Your task to perform on an android device: change keyboard looks Image 0: 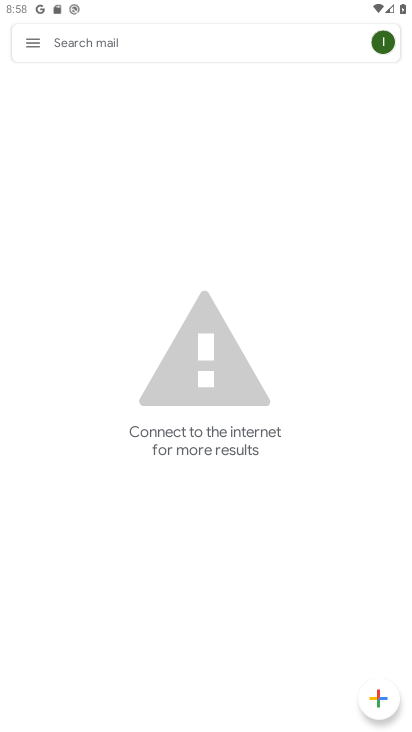
Step 0: press home button
Your task to perform on an android device: change keyboard looks Image 1: 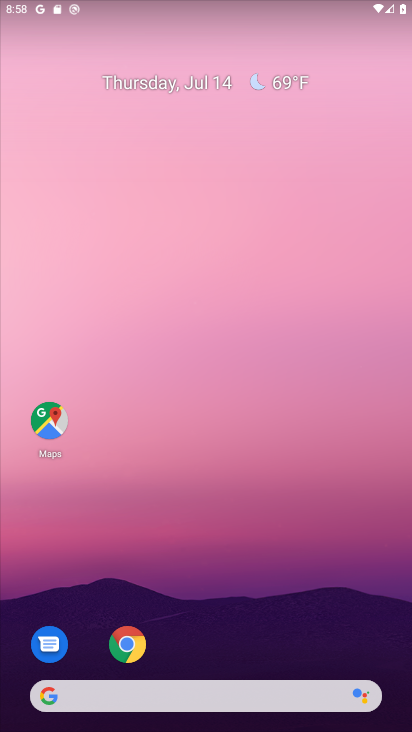
Step 1: drag from (200, 659) to (273, 43)
Your task to perform on an android device: change keyboard looks Image 2: 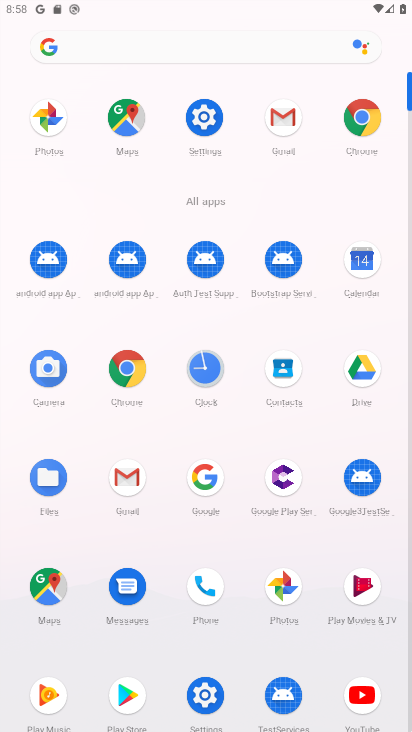
Step 2: click (205, 130)
Your task to perform on an android device: change keyboard looks Image 3: 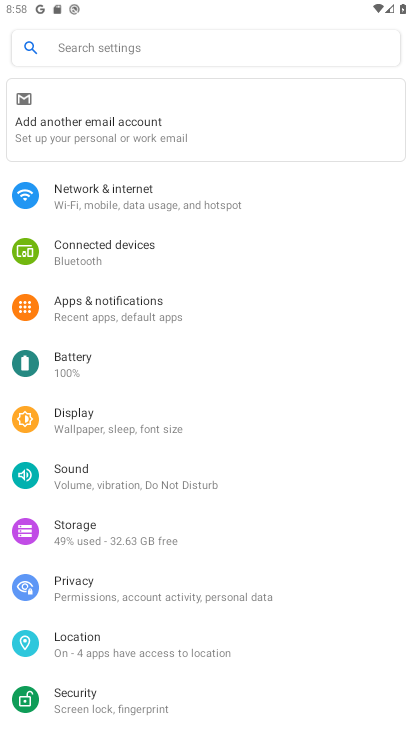
Step 3: drag from (86, 632) to (208, 96)
Your task to perform on an android device: change keyboard looks Image 4: 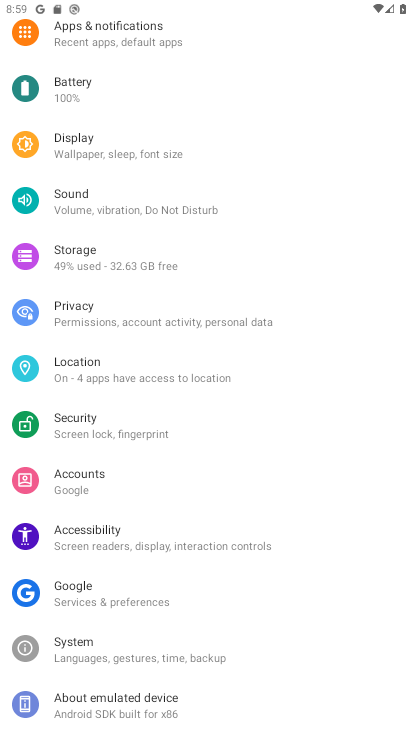
Step 4: drag from (144, 670) to (151, 183)
Your task to perform on an android device: change keyboard looks Image 5: 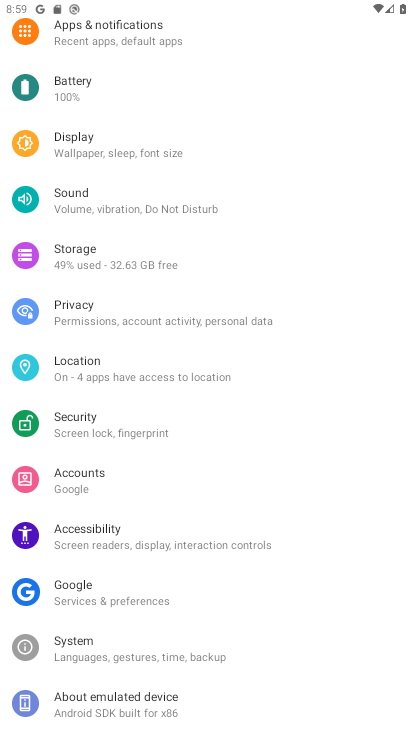
Step 5: click (169, 656)
Your task to perform on an android device: change keyboard looks Image 6: 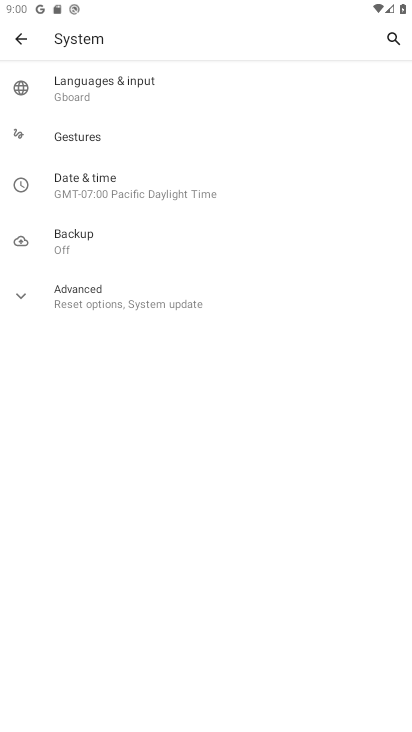
Step 6: click (106, 100)
Your task to perform on an android device: change keyboard looks Image 7: 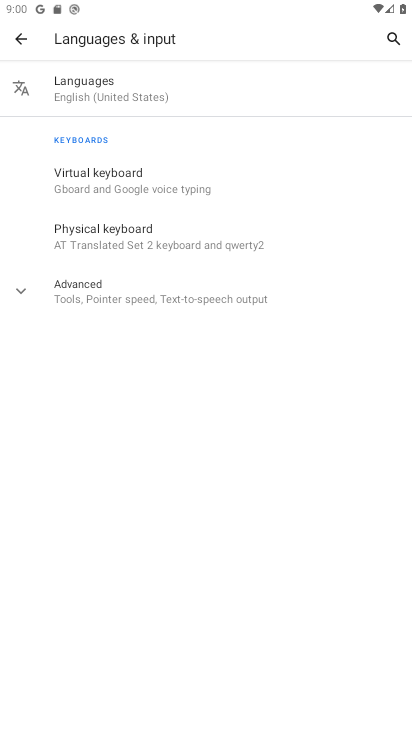
Step 7: click (216, 81)
Your task to perform on an android device: change keyboard looks Image 8: 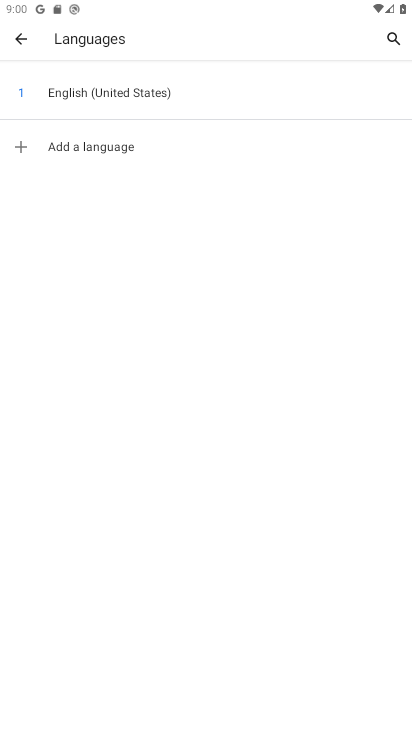
Step 8: click (32, 36)
Your task to perform on an android device: change keyboard looks Image 9: 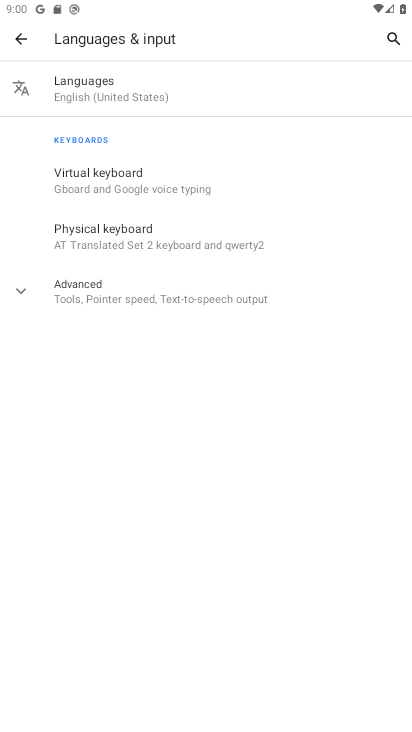
Step 9: click (131, 169)
Your task to perform on an android device: change keyboard looks Image 10: 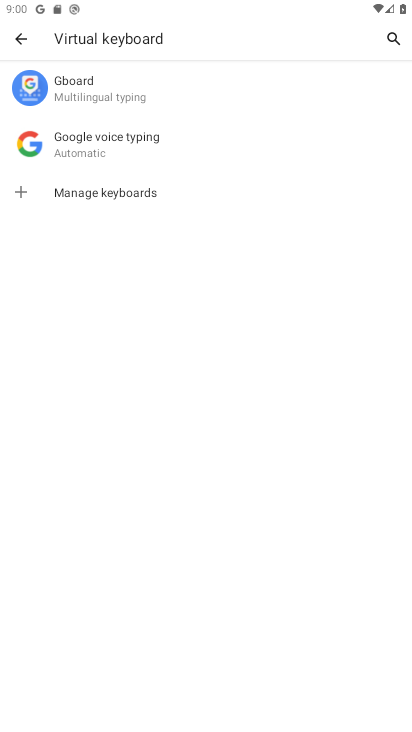
Step 10: click (166, 139)
Your task to perform on an android device: change keyboard looks Image 11: 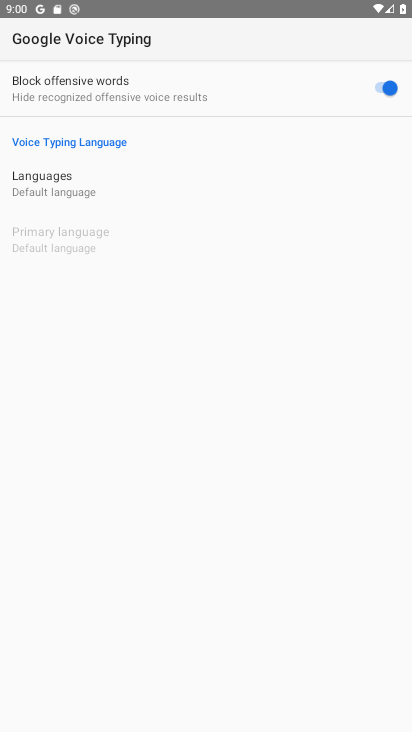
Step 11: click (130, 182)
Your task to perform on an android device: change keyboard looks Image 12: 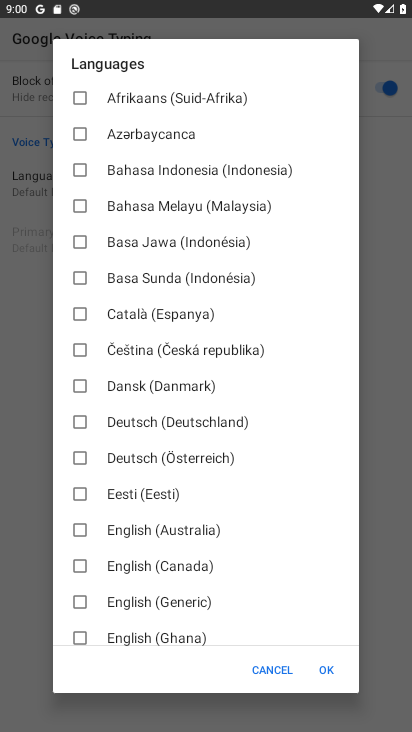
Step 12: click (196, 595)
Your task to perform on an android device: change keyboard looks Image 13: 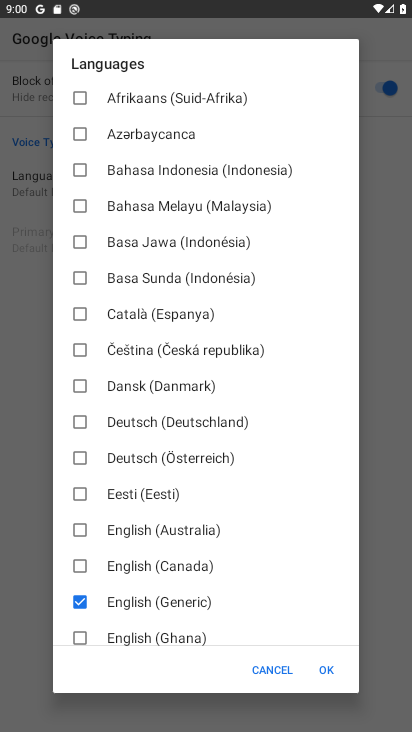
Step 13: click (267, 674)
Your task to perform on an android device: change keyboard looks Image 14: 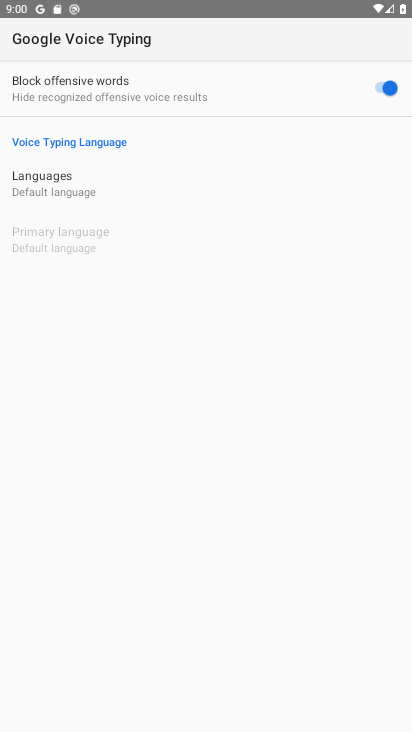
Step 14: click (31, 182)
Your task to perform on an android device: change keyboard looks Image 15: 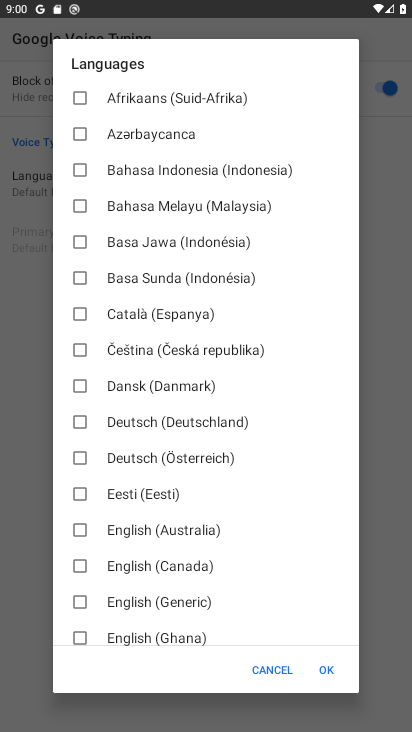
Step 15: click (284, 672)
Your task to perform on an android device: change keyboard looks Image 16: 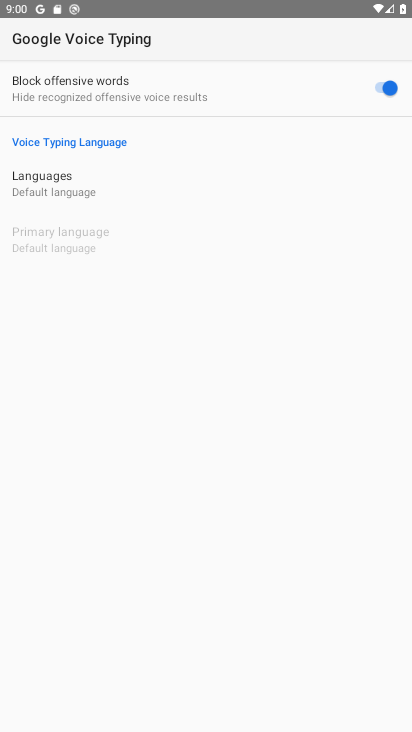
Step 16: press back button
Your task to perform on an android device: change keyboard looks Image 17: 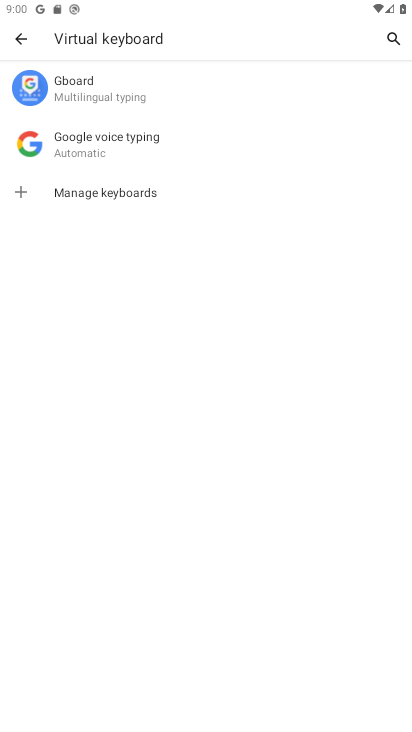
Step 17: click (83, 76)
Your task to perform on an android device: change keyboard looks Image 18: 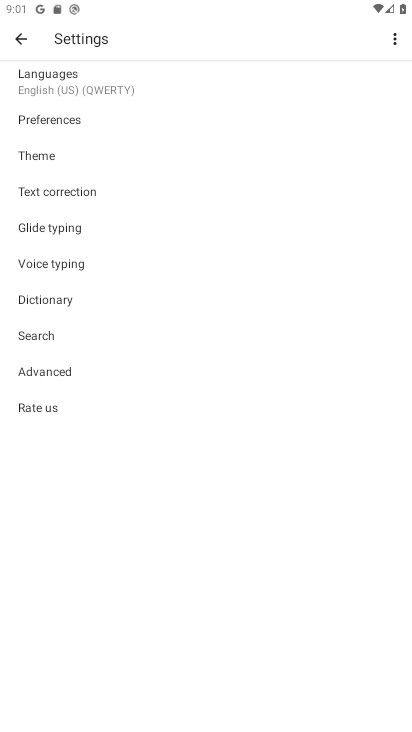
Step 18: click (57, 164)
Your task to perform on an android device: change keyboard looks Image 19: 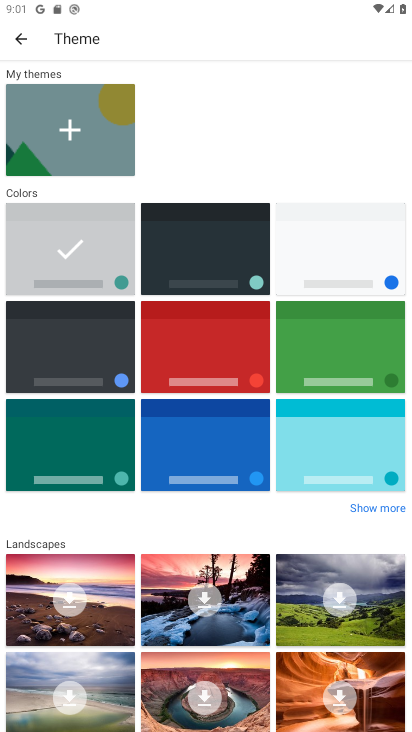
Step 19: click (211, 627)
Your task to perform on an android device: change keyboard looks Image 20: 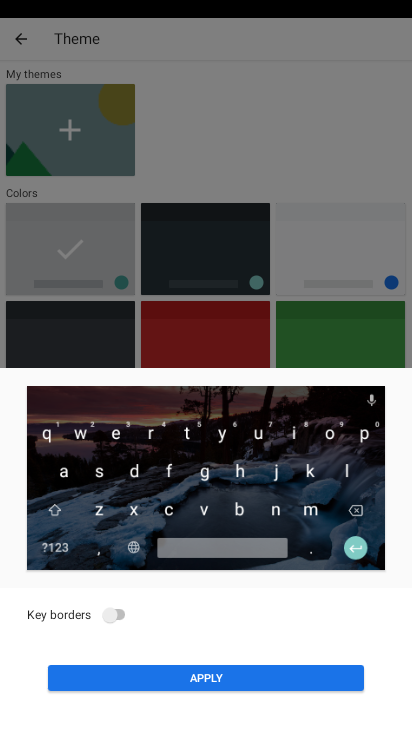
Step 20: click (288, 665)
Your task to perform on an android device: change keyboard looks Image 21: 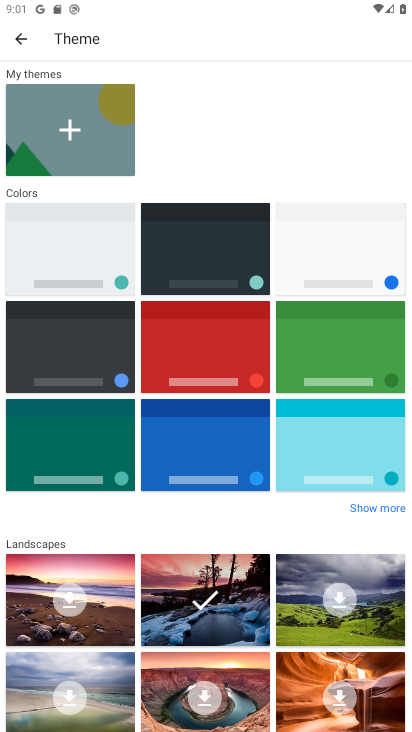
Step 21: task complete